Your task to perform on an android device: move an email to a new category in the gmail app Image 0: 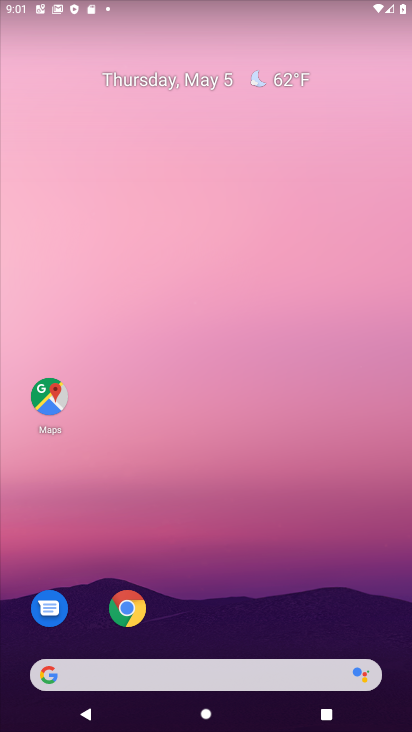
Step 0: drag from (286, 548) to (250, 10)
Your task to perform on an android device: move an email to a new category in the gmail app Image 1: 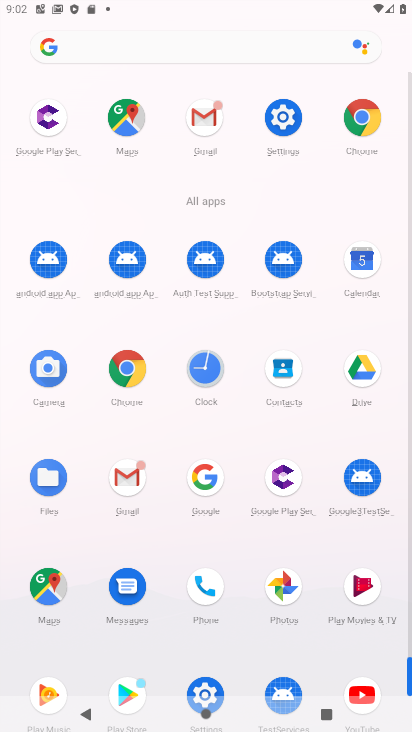
Step 1: drag from (8, 592) to (0, 351)
Your task to perform on an android device: move an email to a new category in the gmail app Image 2: 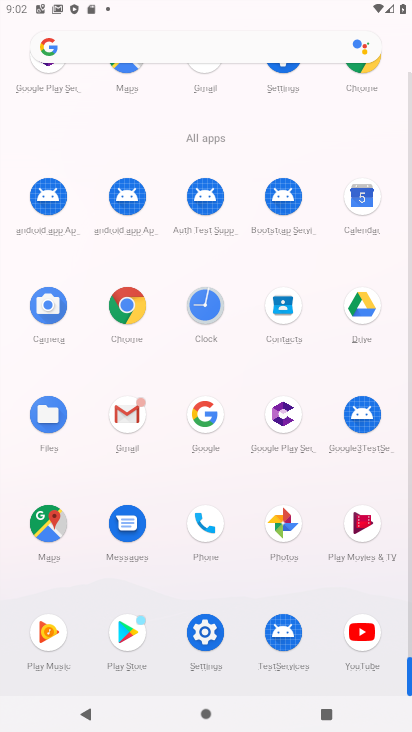
Step 2: click (126, 413)
Your task to perform on an android device: move an email to a new category in the gmail app Image 3: 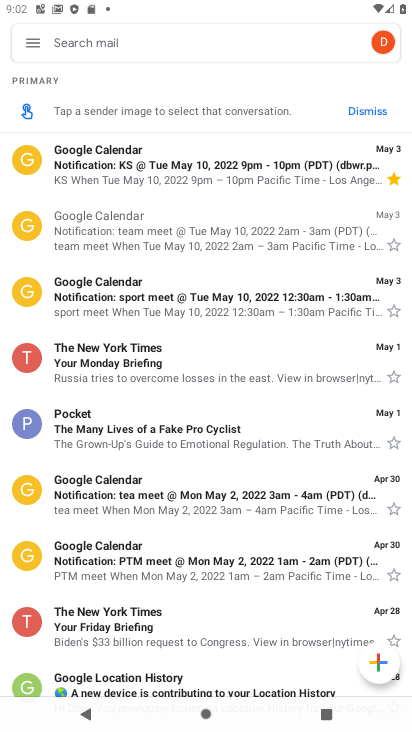
Step 3: click (39, 33)
Your task to perform on an android device: move an email to a new category in the gmail app Image 4: 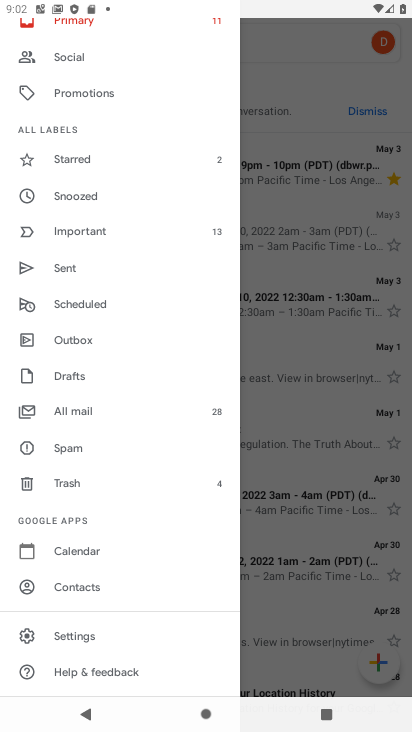
Step 4: click (287, 117)
Your task to perform on an android device: move an email to a new category in the gmail app Image 5: 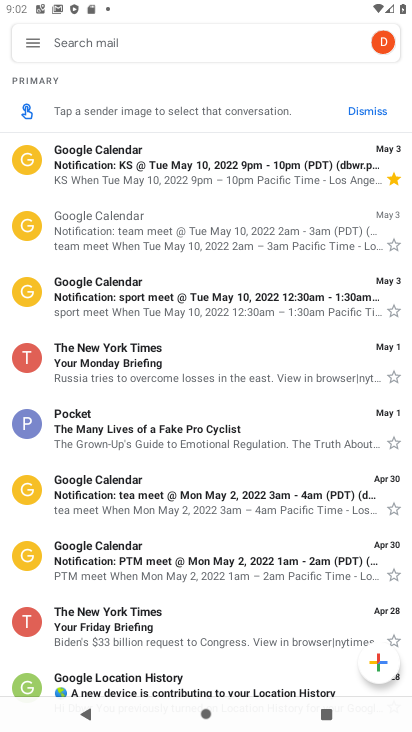
Step 5: click (218, 168)
Your task to perform on an android device: move an email to a new category in the gmail app Image 6: 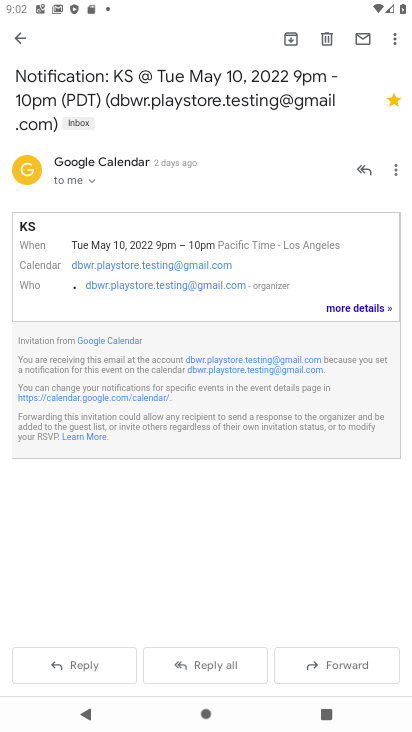
Step 6: click (394, 36)
Your task to perform on an android device: move an email to a new category in the gmail app Image 7: 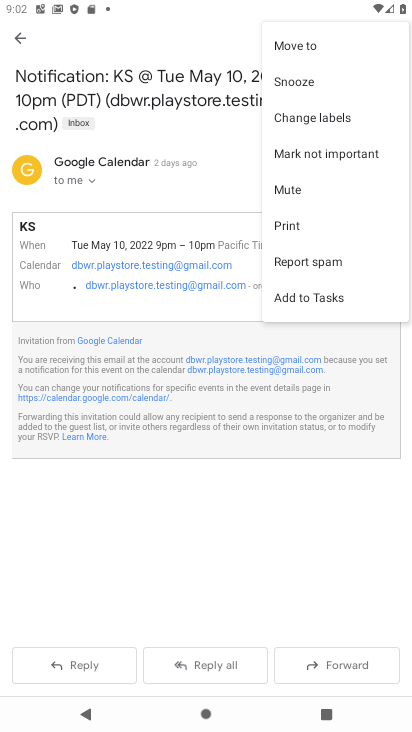
Step 7: click (299, 47)
Your task to perform on an android device: move an email to a new category in the gmail app Image 8: 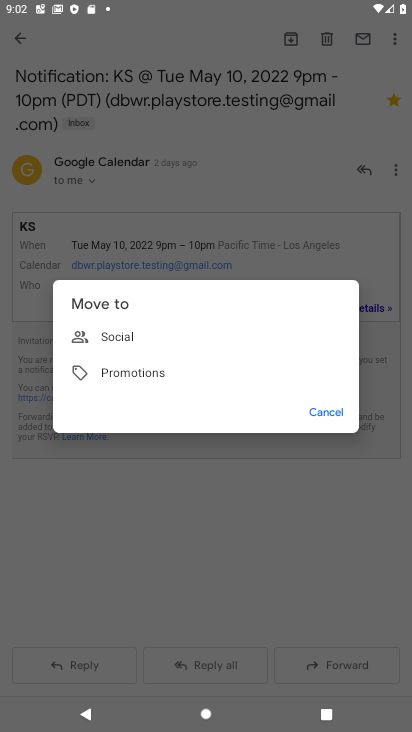
Step 8: click (144, 343)
Your task to perform on an android device: move an email to a new category in the gmail app Image 9: 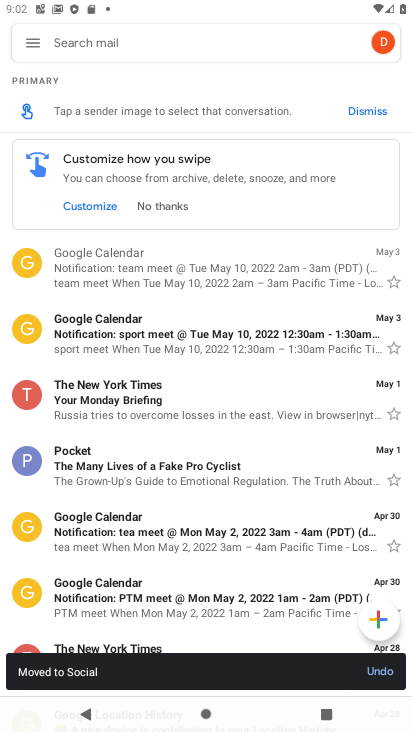
Step 9: task complete